Your task to perform on an android device: change the clock display to analog Image 0: 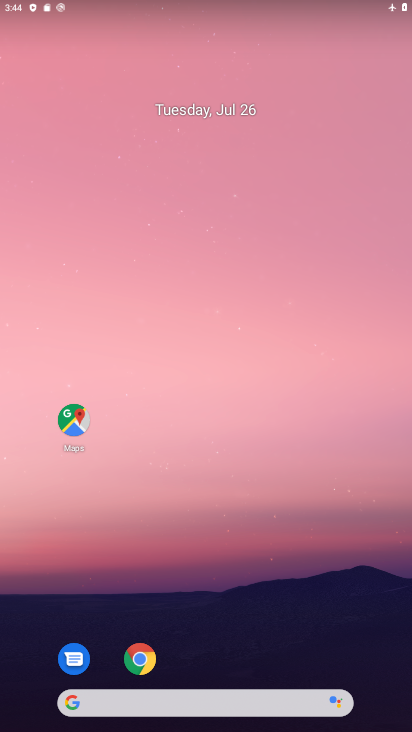
Step 0: drag from (253, 602) to (231, 3)
Your task to perform on an android device: change the clock display to analog Image 1: 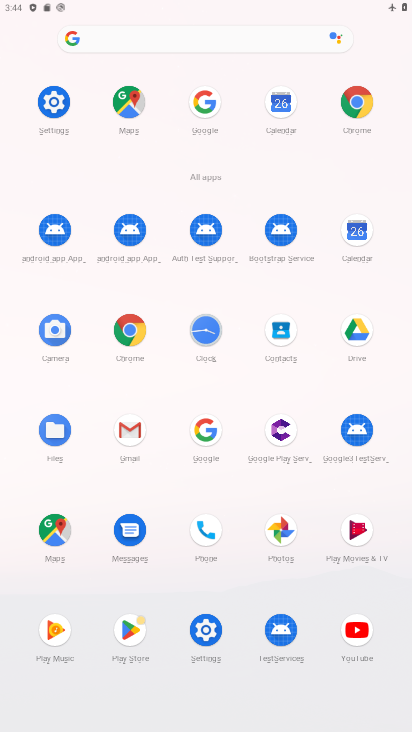
Step 1: click (212, 333)
Your task to perform on an android device: change the clock display to analog Image 2: 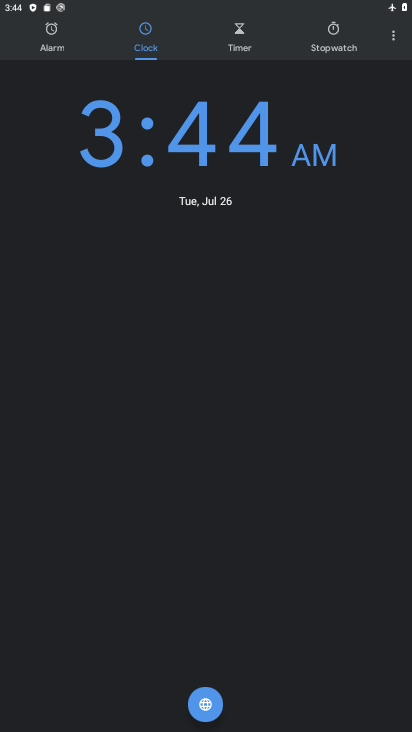
Step 2: click (390, 40)
Your task to perform on an android device: change the clock display to analog Image 3: 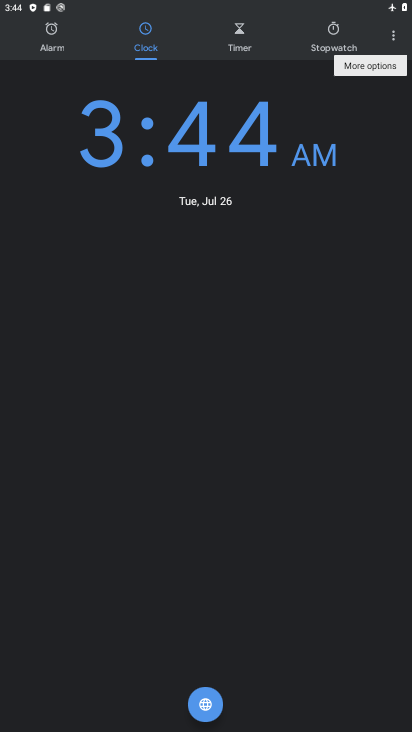
Step 3: click (390, 40)
Your task to perform on an android device: change the clock display to analog Image 4: 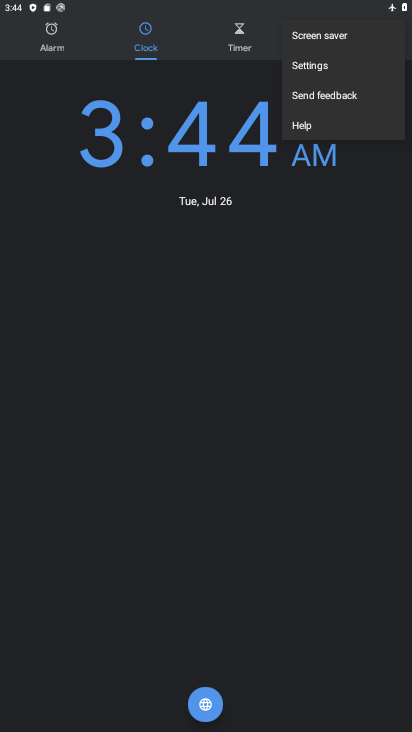
Step 4: click (322, 62)
Your task to perform on an android device: change the clock display to analog Image 5: 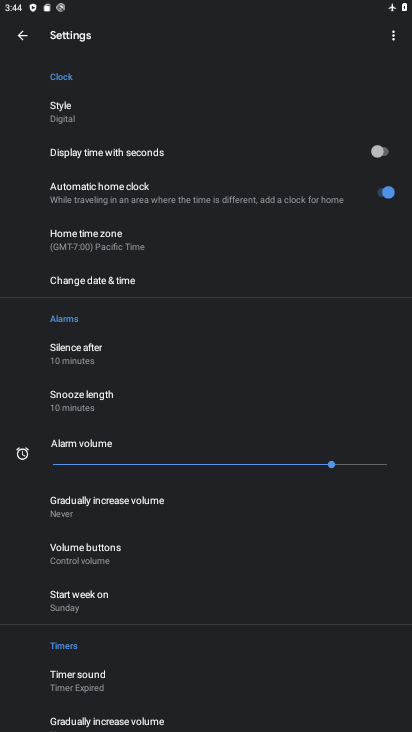
Step 5: click (67, 113)
Your task to perform on an android device: change the clock display to analog Image 6: 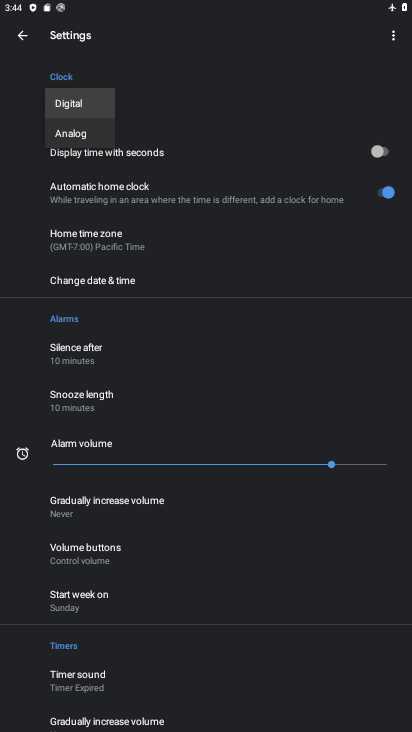
Step 6: click (68, 134)
Your task to perform on an android device: change the clock display to analog Image 7: 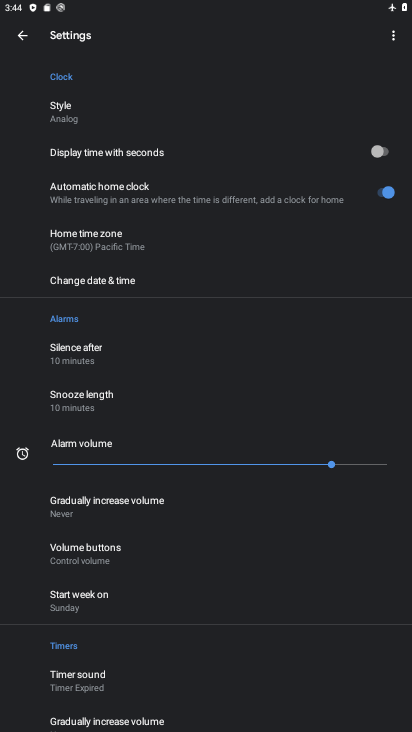
Step 7: task complete